Your task to perform on an android device: turn on airplane mode Image 0: 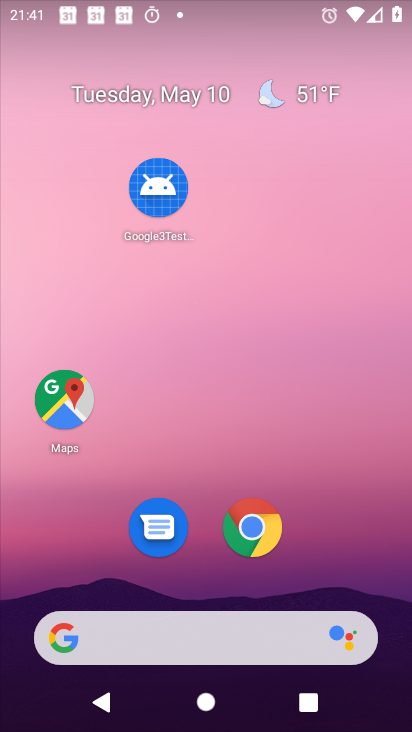
Step 0: drag from (201, 577) to (185, 4)
Your task to perform on an android device: turn on airplane mode Image 1: 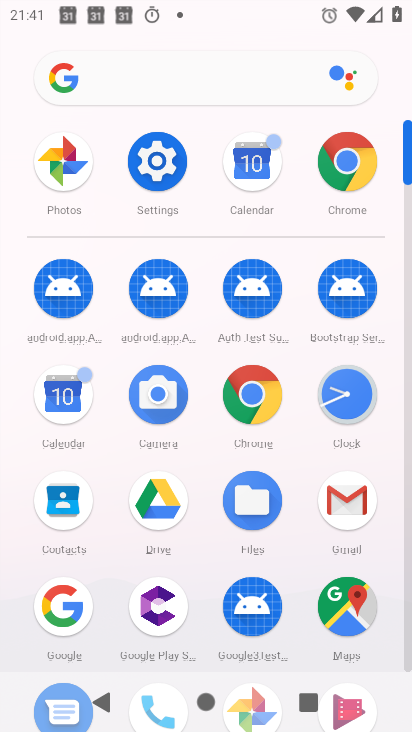
Step 1: click (166, 198)
Your task to perform on an android device: turn on airplane mode Image 2: 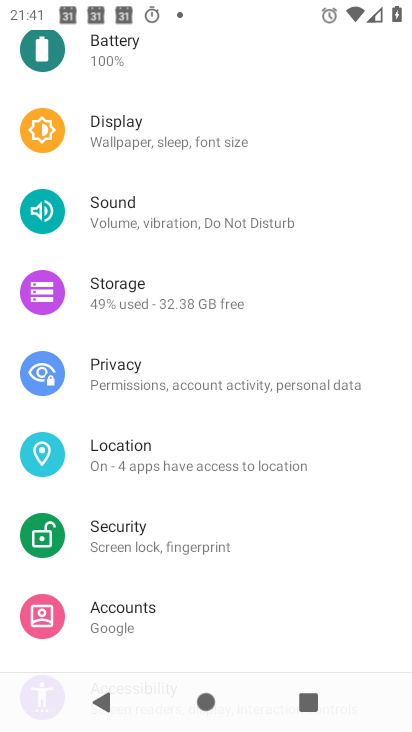
Step 2: drag from (151, 155) to (117, 708)
Your task to perform on an android device: turn on airplane mode Image 3: 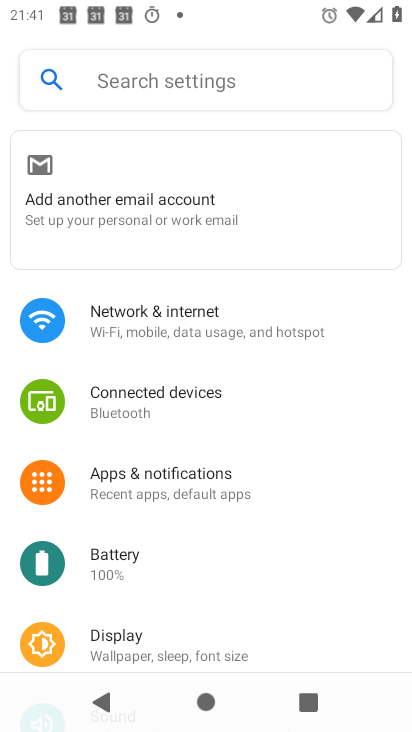
Step 3: click (152, 312)
Your task to perform on an android device: turn on airplane mode Image 4: 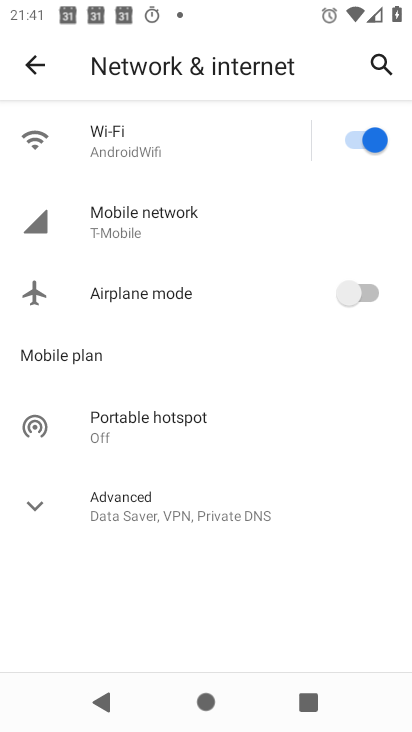
Step 4: click (336, 292)
Your task to perform on an android device: turn on airplane mode Image 5: 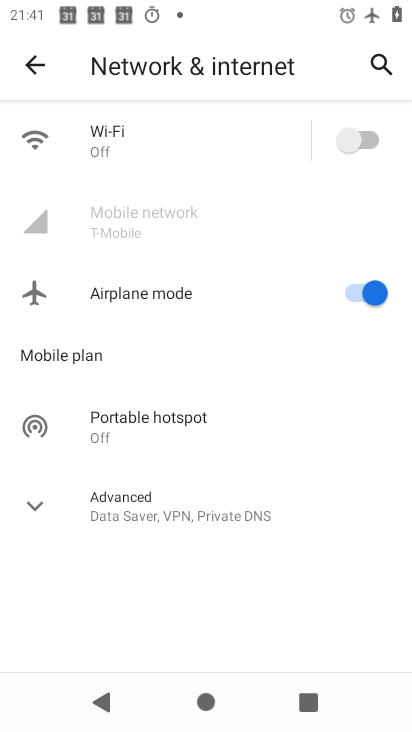
Step 5: task complete